Your task to perform on an android device: open app "HBO Max: Stream TV & Movies" (install if not already installed) and go to login screen Image 0: 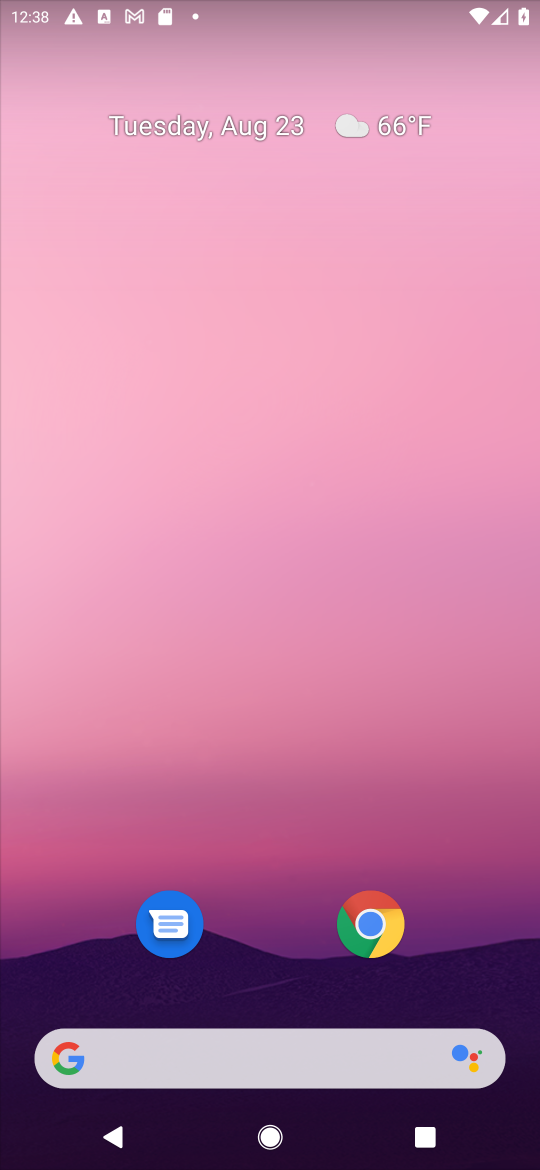
Step 0: press home button
Your task to perform on an android device: open app "HBO Max: Stream TV & Movies" (install if not already installed) and go to login screen Image 1: 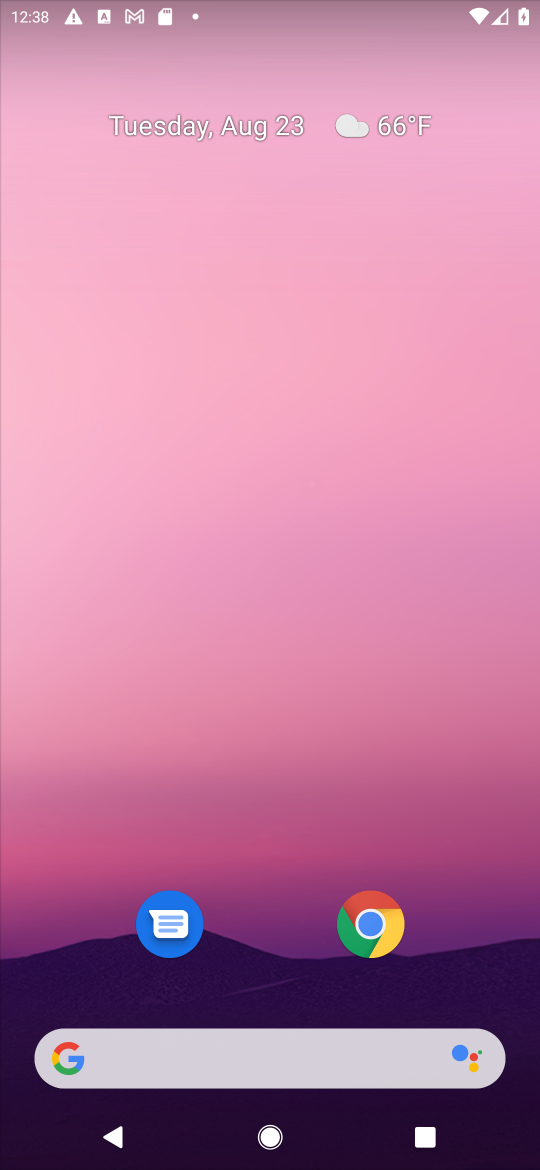
Step 1: drag from (484, 963) to (496, 149)
Your task to perform on an android device: open app "HBO Max: Stream TV & Movies" (install if not already installed) and go to login screen Image 2: 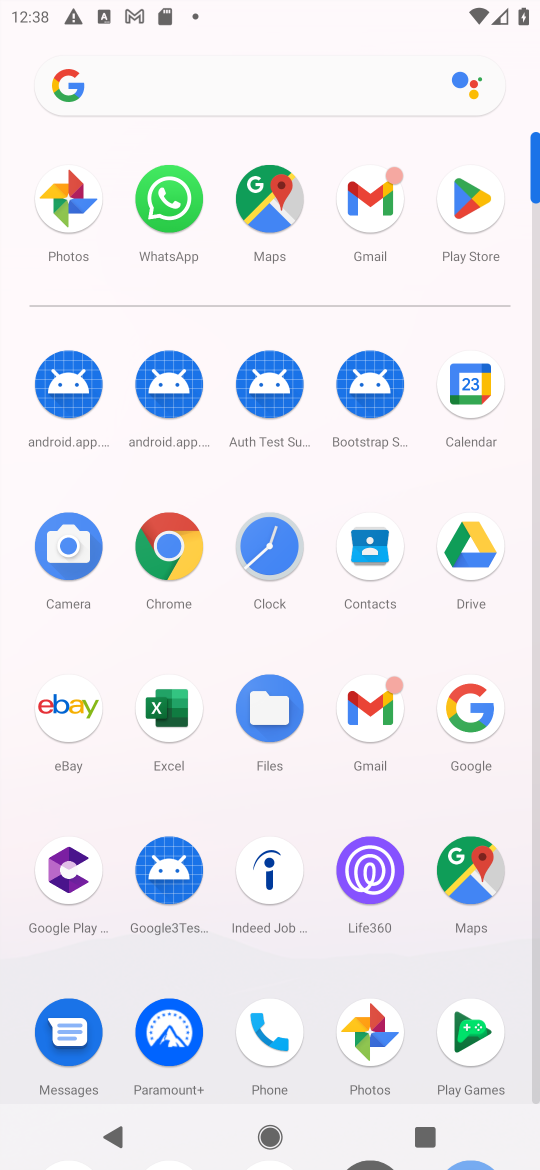
Step 2: click (466, 197)
Your task to perform on an android device: open app "HBO Max: Stream TV & Movies" (install if not already installed) and go to login screen Image 3: 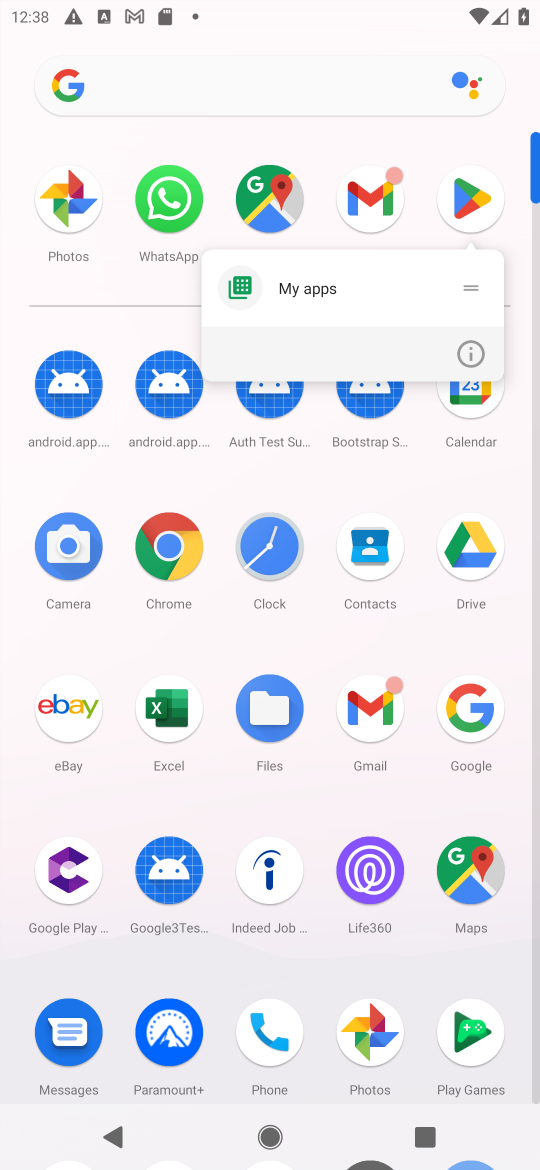
Step 3: click (467, 193)
Your task to perform on an android device: open app "HBO Max: Stream TV & Movies" (install if not already installed) and go to login screen Image 4: 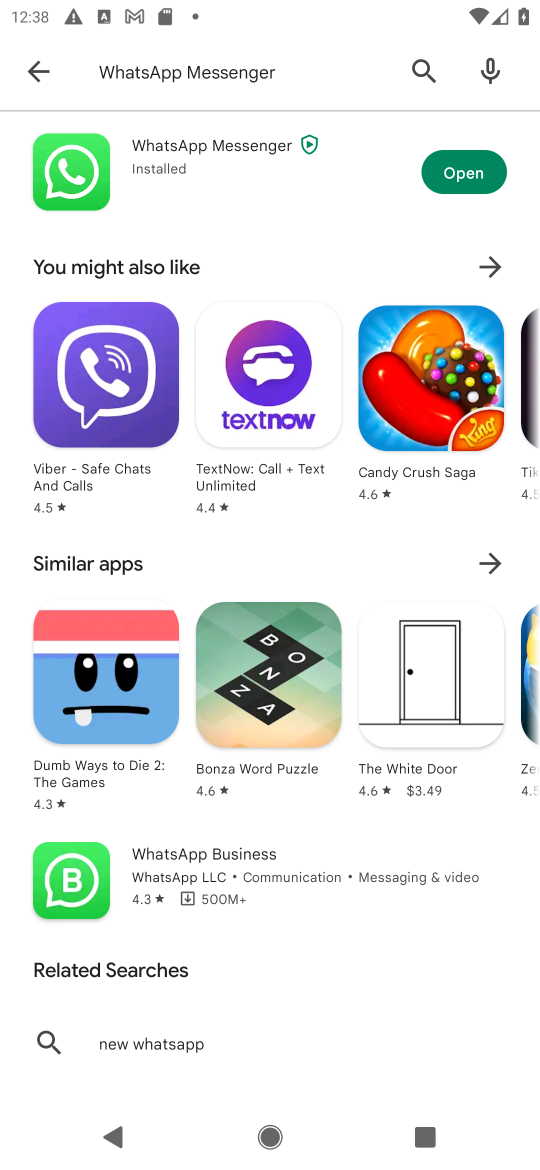
Step 4: press back button
Your task to perform on an android device: open app "HBO Max: Stream TV & Movies" (install if not already installed) and go to login screen Image 5: 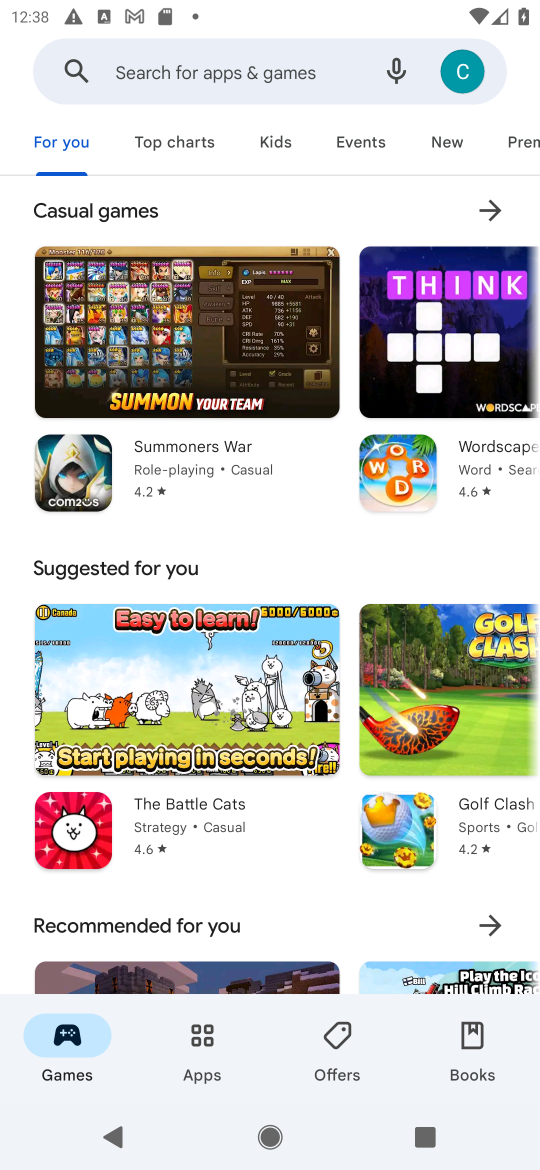
Step 5: click (235, 71)
Your task to perform on an android device: open app "HBO Max: Stream TV & Movies" (install if not already installed) and go to login screen Image 6: 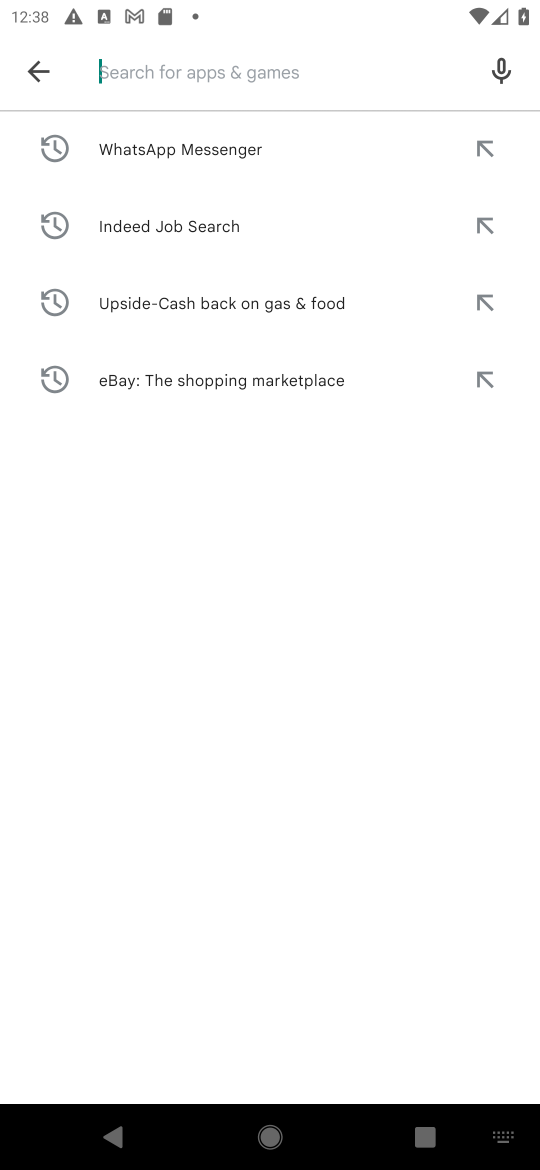
Step 6: press enter
Your task to perform on an android device: open app "HBO Max: Stream TV & Movies" (install if not already installed) and go to login screen Image 7: 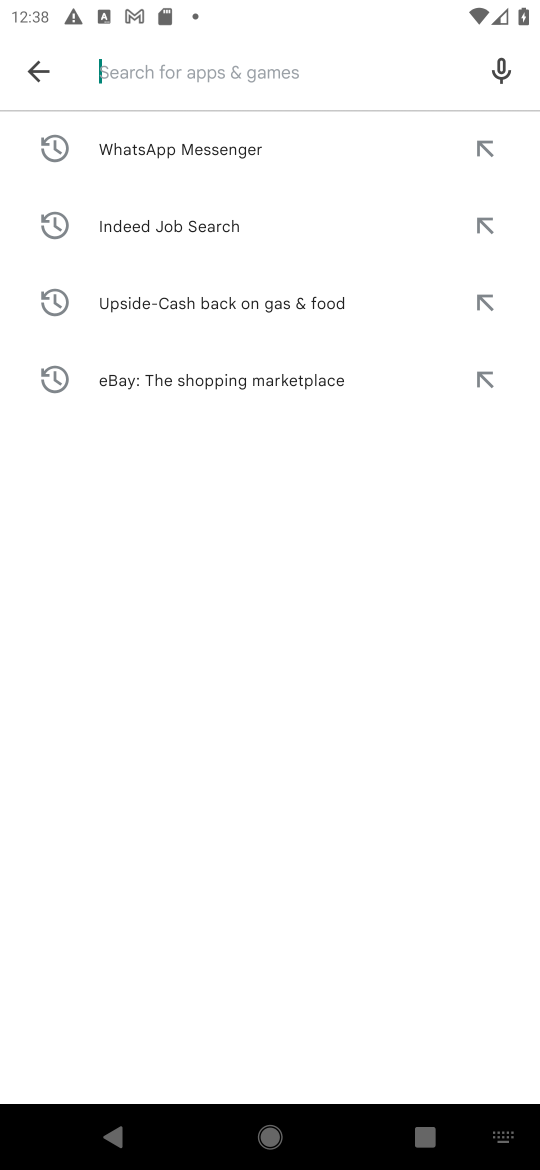
Step 7: type "HBO Max: Stream TV & Movies"
Your task to perform on an android device: open app "HBO Max: Stream TV & Movies" (install if not already installed) and go to login screen Image 8: 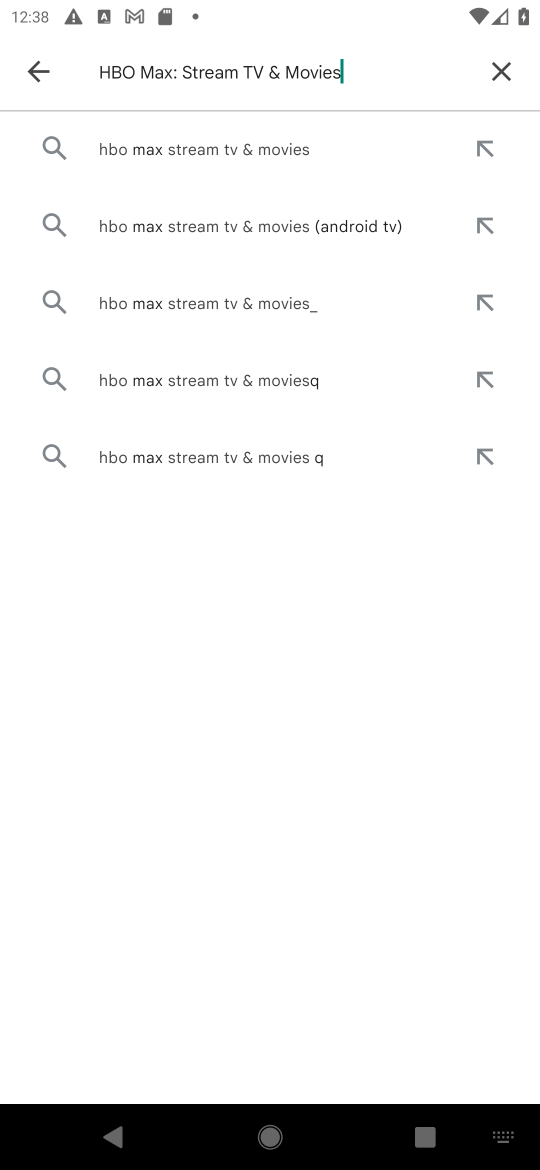
Step 8: click (311, 154)
Your task to perform on an android device: open app "HBO Max: Stream TV & Movies" (install if not already installed) and go to login screen Image 9: 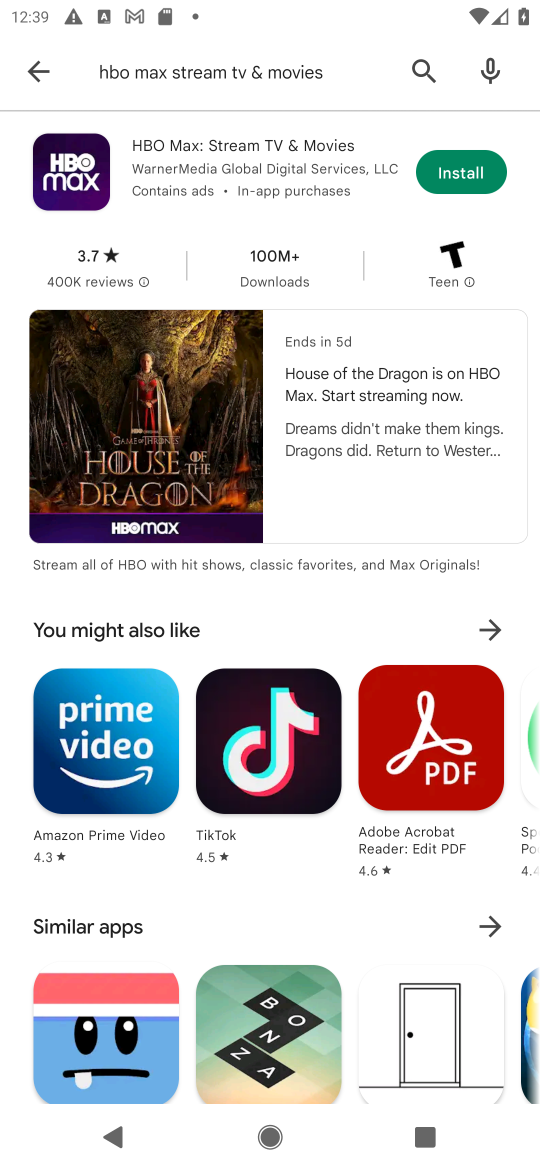
Step 9: click (474, 171)
Your task to perform on an android device: open app "HBO Max: Stream TV & Movies" (install if not already installed) and go to login screen Image 10: 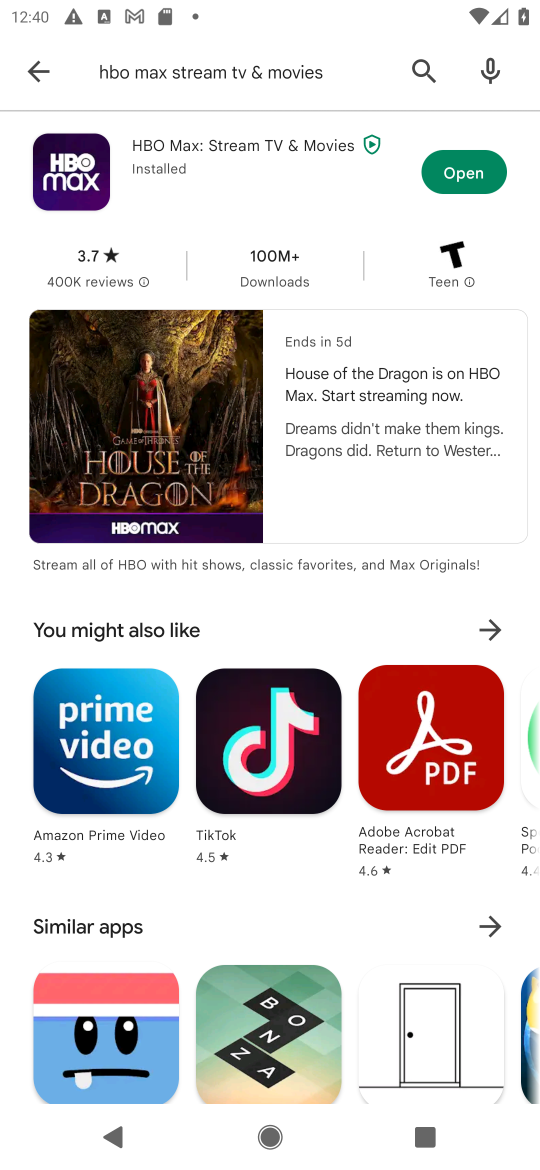
Step 10: click (465, 173)
Your task to perform on an android device: open app "HBO Max: Stream TV & Movies" (install if not already installed) and go to login screen Image 11: 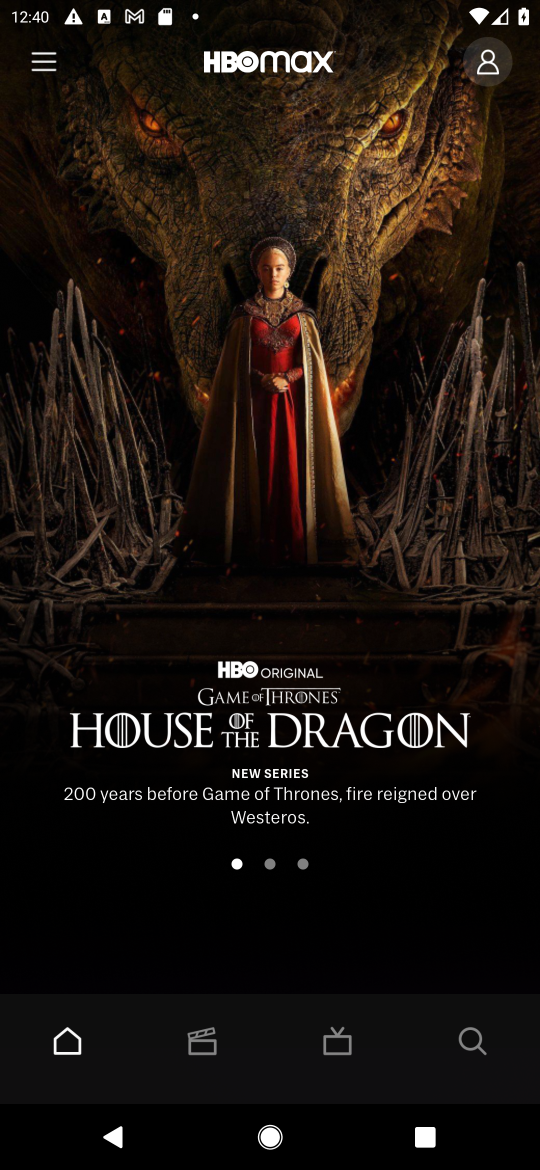
Step 11: click (489, 65)
Your task to perform on an android device: open app "HBO Max: Stream TV & Movies" (install if not already installed) and go to login screen Image 12: 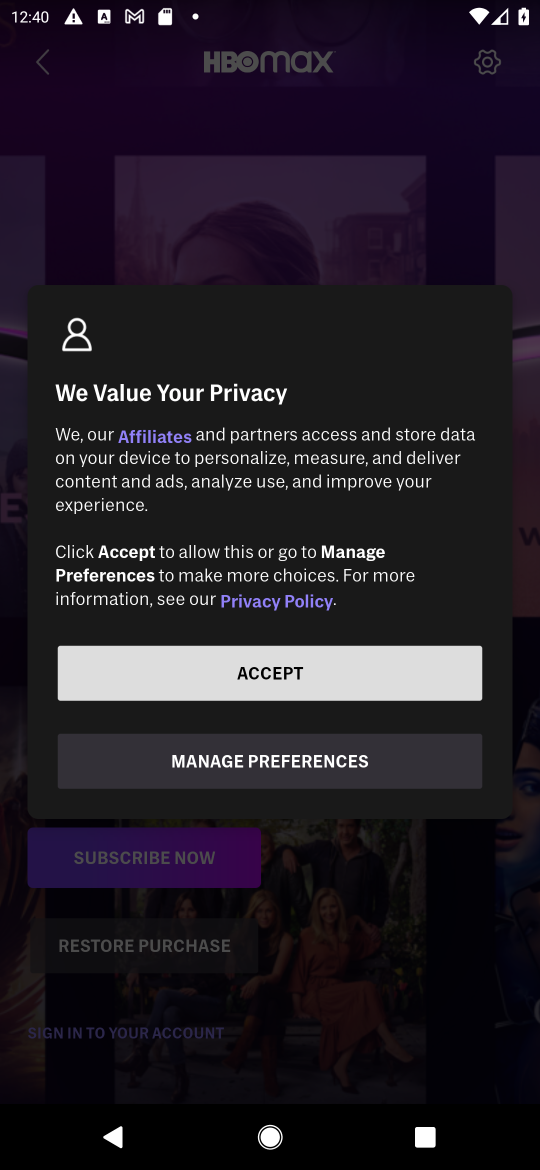
Step 12: click (316, 678)
Your task to perform on an android device: open app "HBO Max: Stream TV & Movies" (install if not already installed) and go to login screen Image 13: 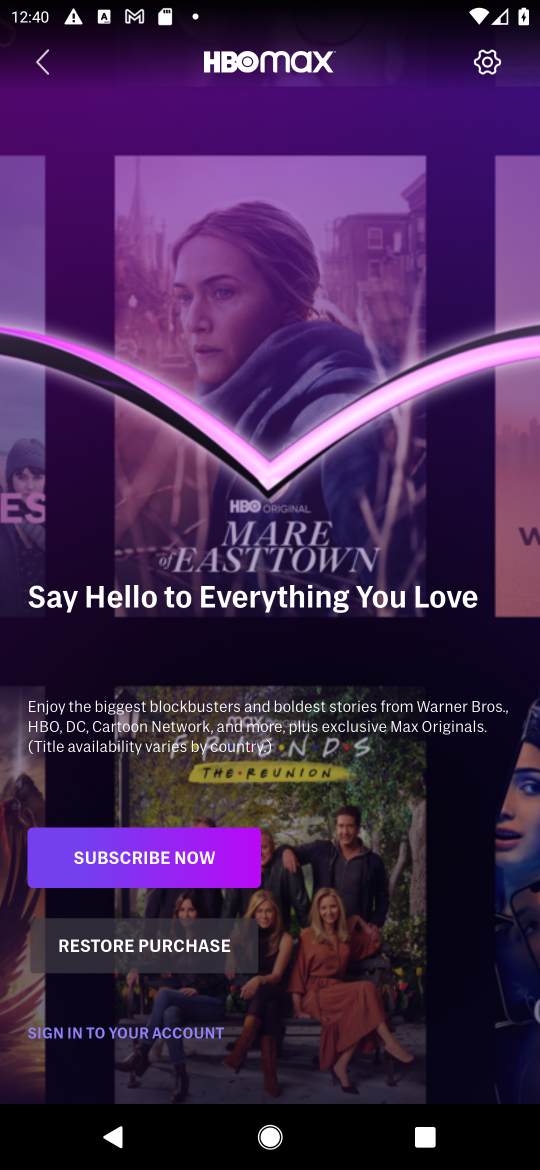
Step 13: click (106, 1032)
Your task to perform on an android device: open app "HBO Max: Stream TV & Movies" (install if not already installed) and go to login screen Image 14: 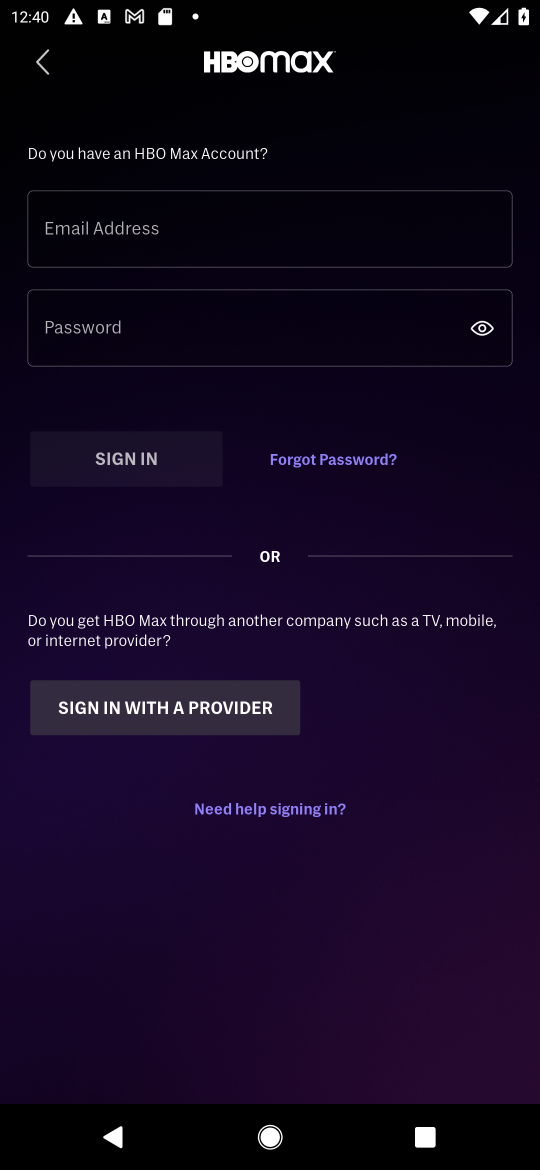
Step 14: task complete